Your task to perform on an android device: turn off data saver in the chrome app Image 0: 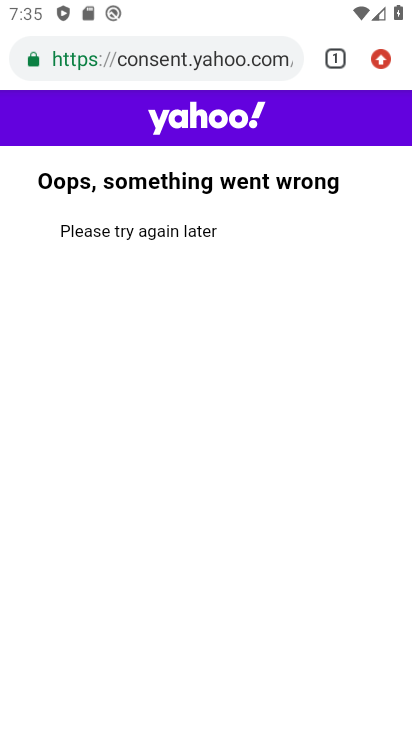
Step 0: press home button
Your task to perform on an android device: turn off data saver in the chrome app Image 1: 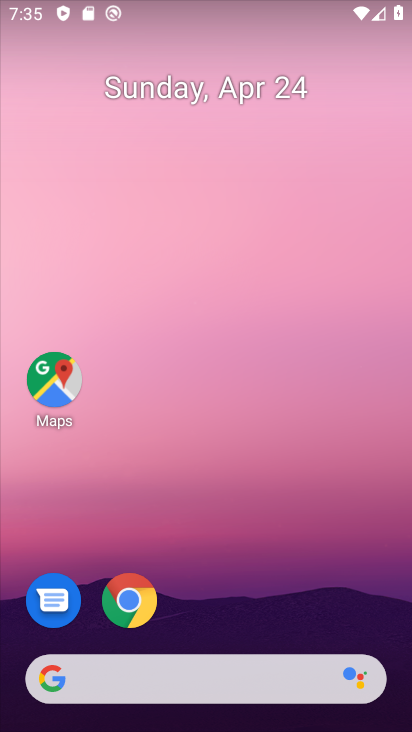
Step 1: drag from (368, 588) to (390, 41)
Your task to perform on an android device: turn off data saver in the chrome app Image 2: 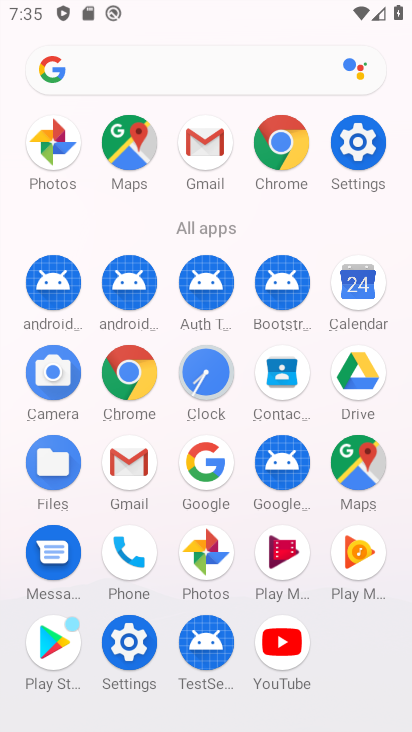
Step 2: click (289, 127)
Your task to perform on an android device: turn off data saver in the chrome app Image 3: 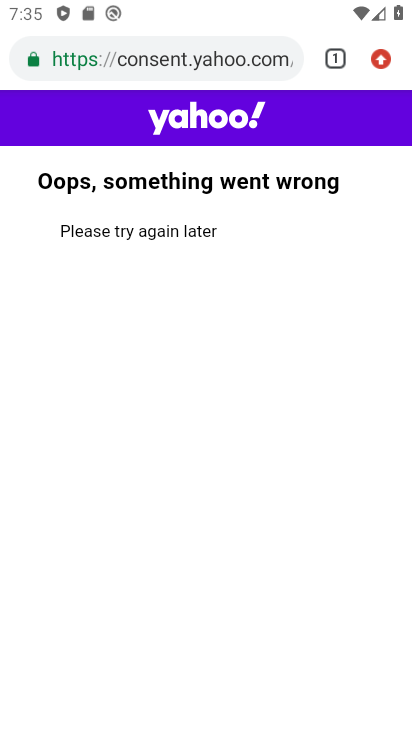
Step 3: click (381, 58)
Your task to perform on an android device: turn off data saver in the chrome app Image 4: 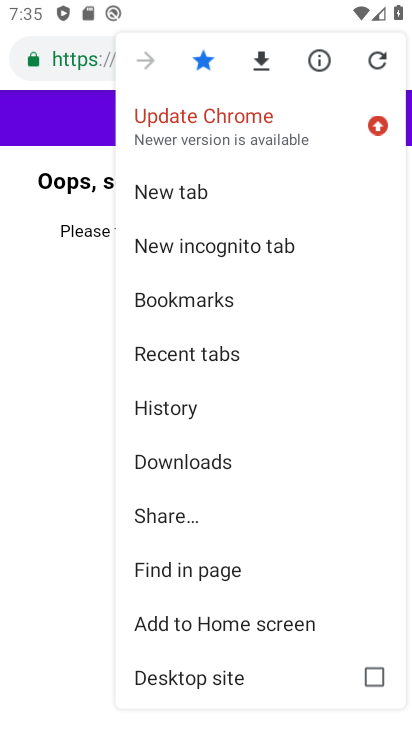
Step 4: drag from (306, 538) to (338, 341)
Your task to perform on an android device: turn off data saver in the chrome app Image 5: 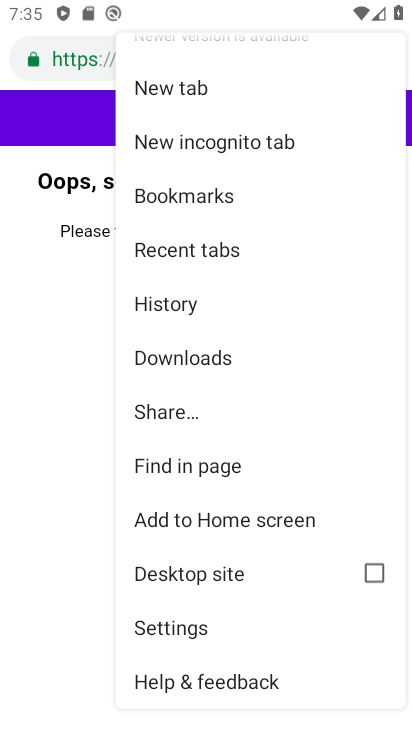
Step 5: drag from (312, 611) to (320, 398)
Your task to perform on an android device: turn off data saver in the chrome app Image 6: 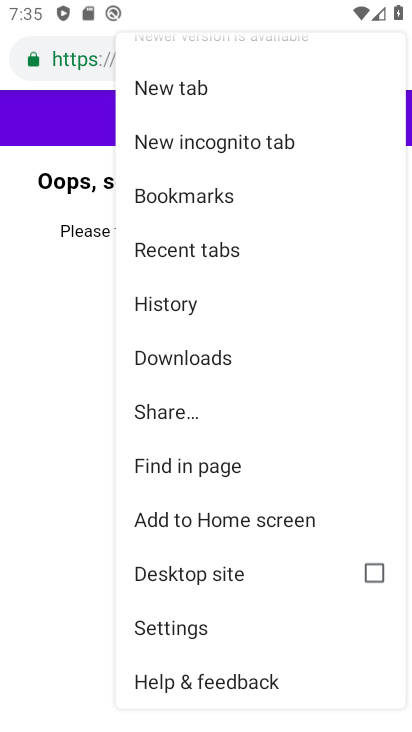
Step 6: click (161, 635)
Your task to perform on an android device: turn off data saver in the chrome app Image 7: 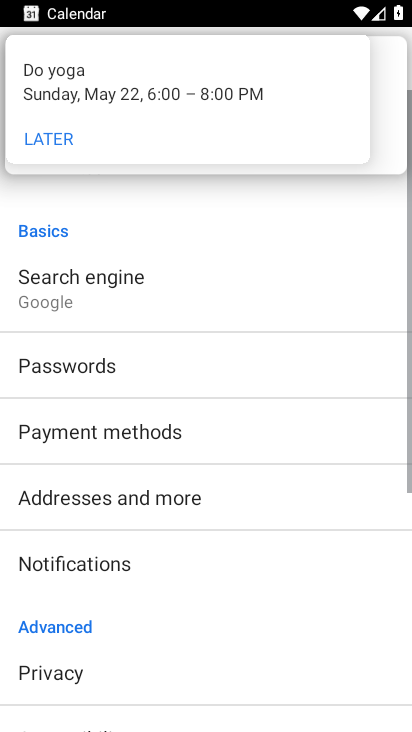
Step 7: drag from (305, 606) to (350, 389)
Your task to perform on an android device: turn off data saver in the chrome app Image 8: 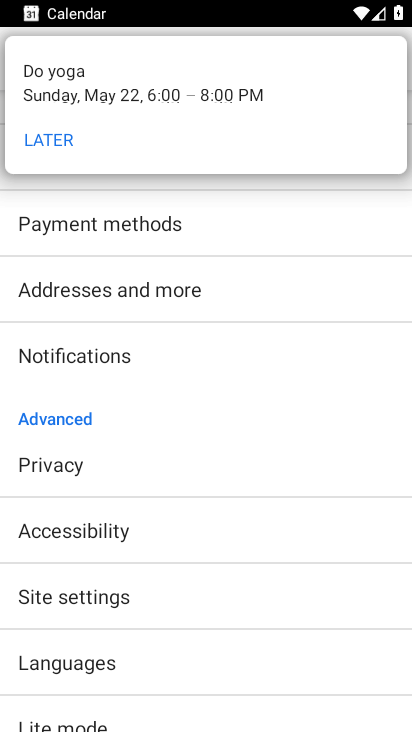
Step 8: drag from (352, 605) to (362, 422)
Your task to perform on an android device: turn off data saver in the chrome app Image 9: 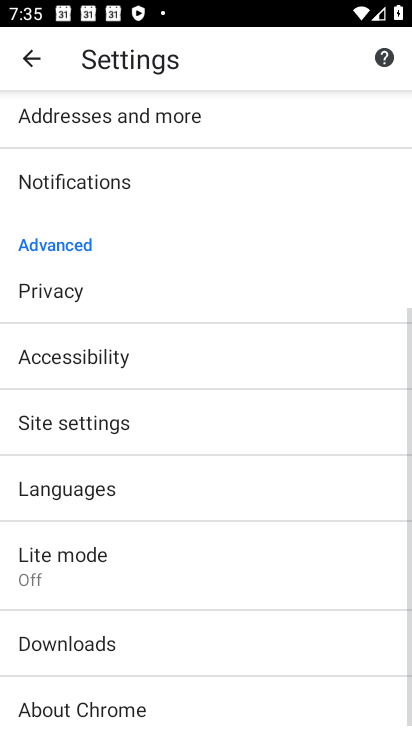
Step 9: drag from (357, 641) to (360, 418)
Your task to perform on an android device: turn off data saver in the chrome app Image 10: 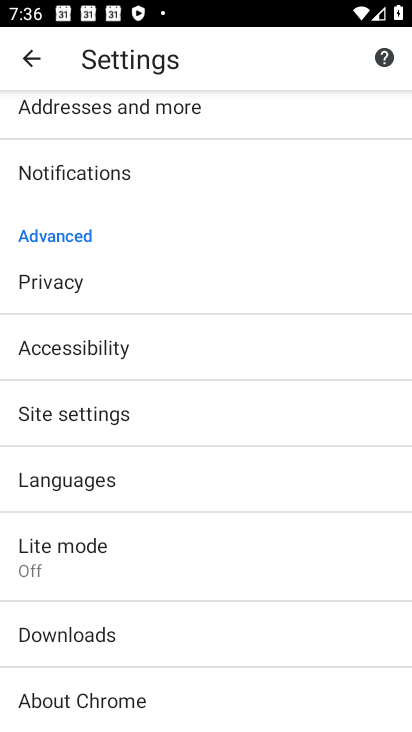
Step 10: click (270, 566)
Your task to perform on an android device: turn off data saver in the chrome app Image 11: 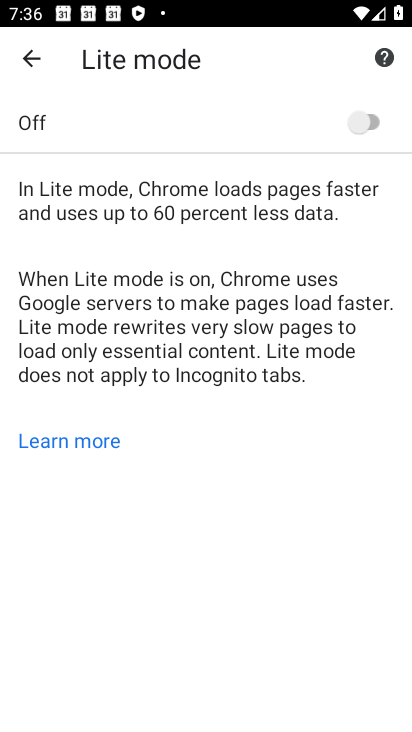
Step 11: task complete